Your task to perform on an android device: refresh tabs in the chrome app Image 0: 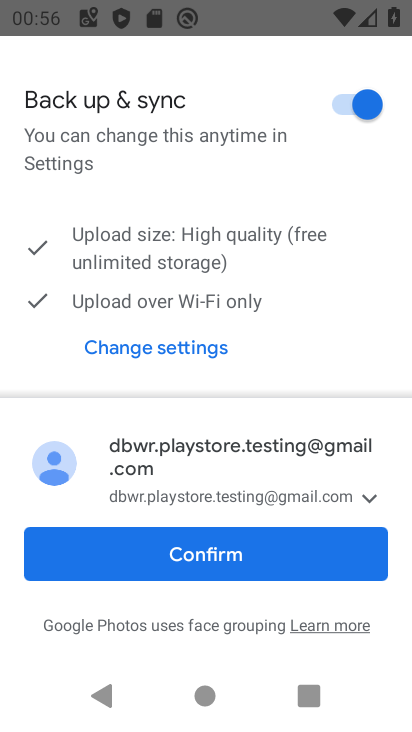
Step 0: press home button
Your task to perform on an android device: refresh tabs in the chrome app Image 1: 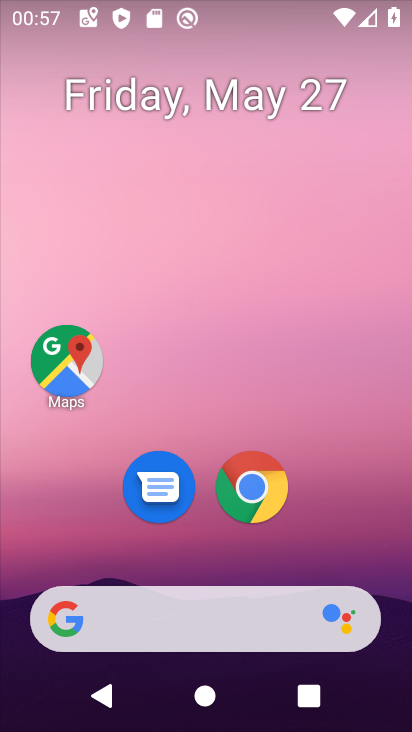
Step 1: click (267, 491)
Your task to perform on an android device: refresh tabs in the chrome app Image 2: 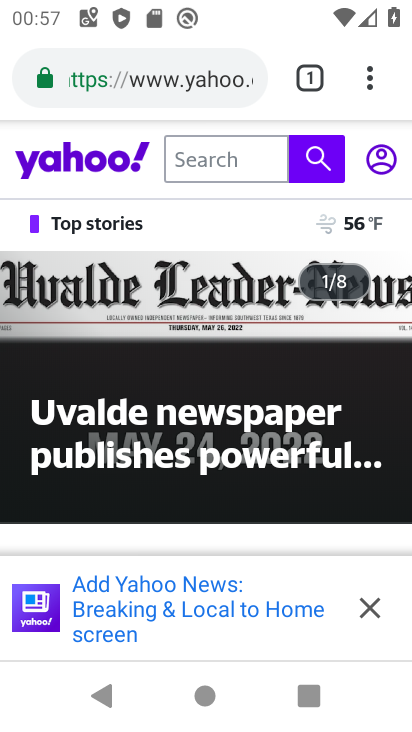
Step 2: click (367, 83)
Your task to perform on an android device: refresh tabs in the chrome app Image 3: 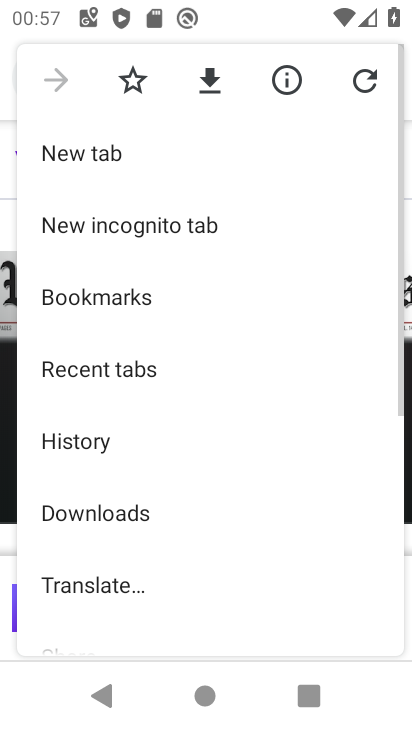
Step 3: click (358, 78)
Your task to perform on an android device: refresh tabs in the chrome app Image 4: 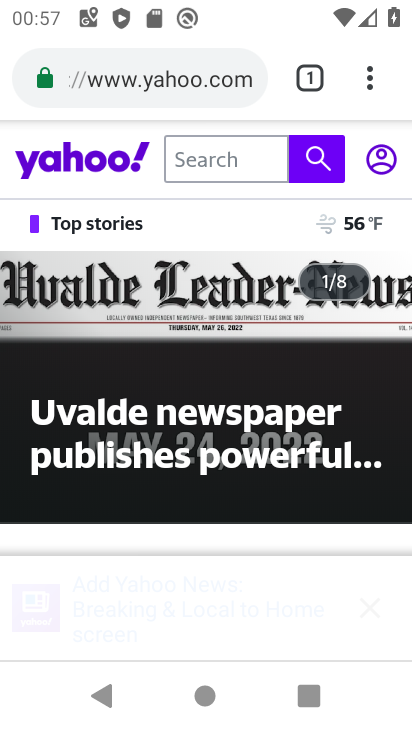
Step 4: task complete